Your task to perform on an android device: all mails in gmail Image 0: 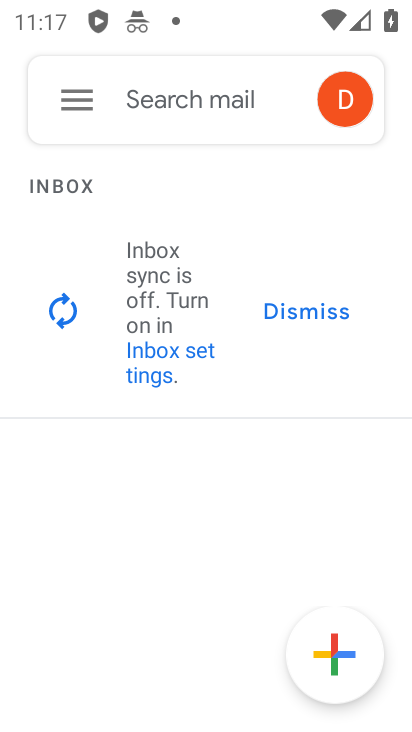
Step 0: click (50, 118)
Your task to perform on an android device: all mails in gmail Image 1: 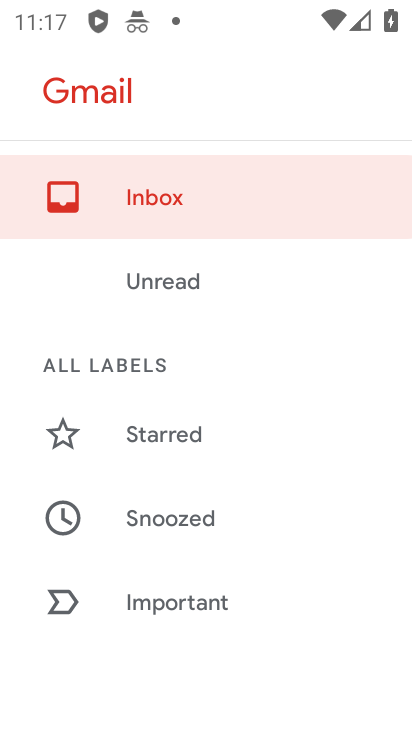
Step 1: drag from (158, 580) to (305, 108)
Your task to perform on an android device: all mails in gmail Image 2: 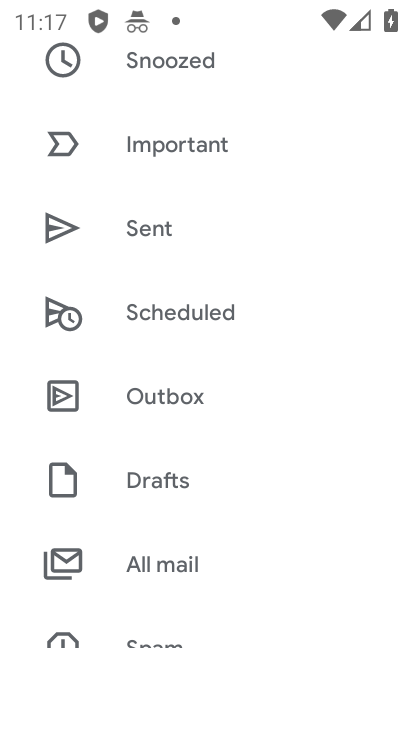
Step 2: click (186, 572)
Your task to perform on an android device: all mails in gmail Image 3: 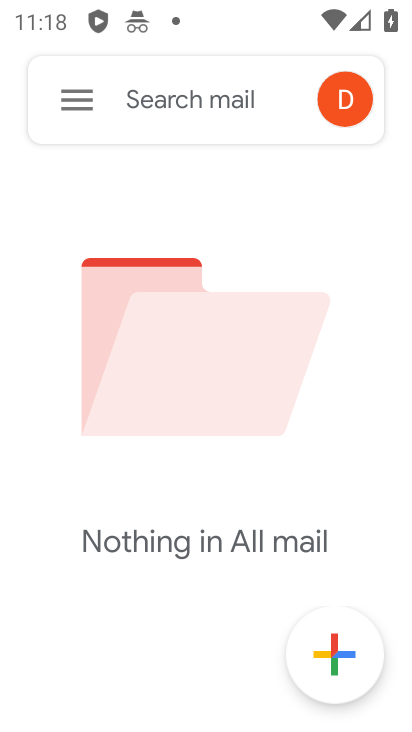
Step 3: task complete